Your task to perform on an android device: Open sound settings Image 0: 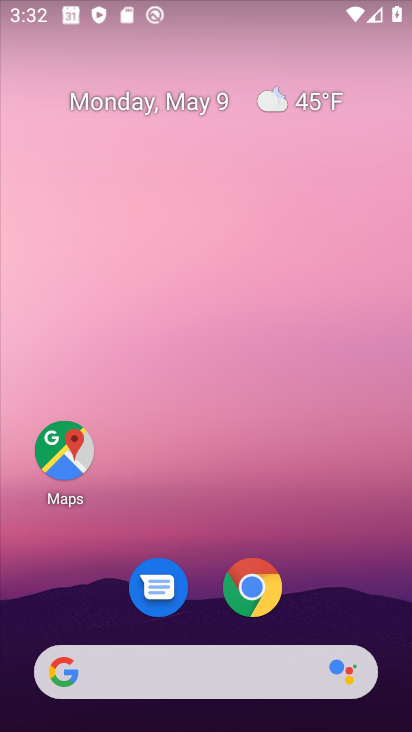
Step 0: drag from (397, 649) to (316, 173)
Your task to perform on an android device: Open sound settings Image 1: 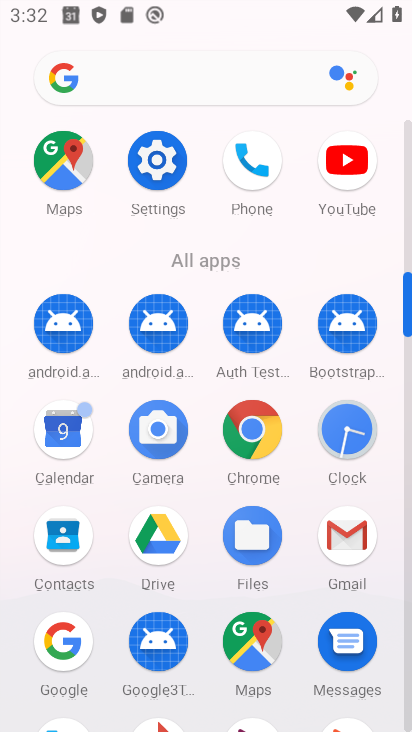
Step 1: click (159, 148)
Your task to perform on an android device: Open sound settings Image 2: 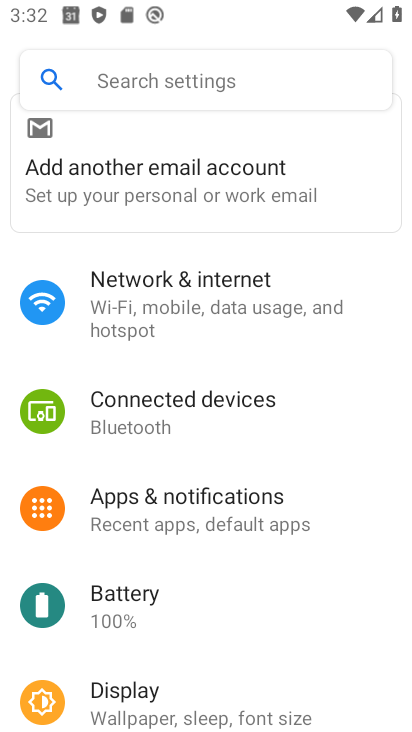
Step 2: drag from (365, 658) to (358, 315)
Your task to perform on an android device: Open sound settings Image 3: 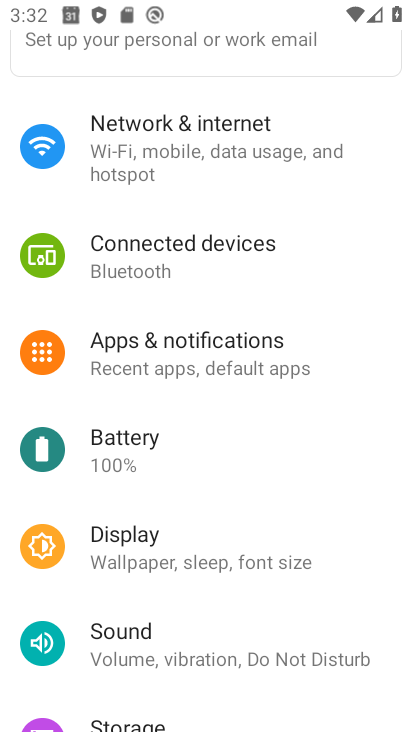
Step 3: click (110, 625)
Your task to perform on an android device: Open sound settings Image 4: 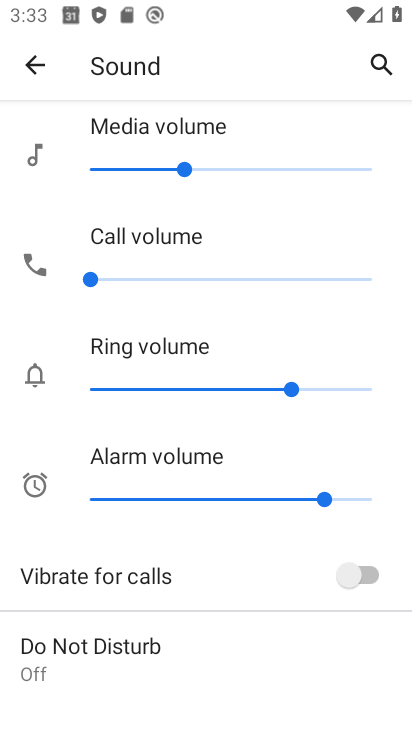
Step 4: task complete